Your task to perform on an android device: turn on sleep mode Image 0: 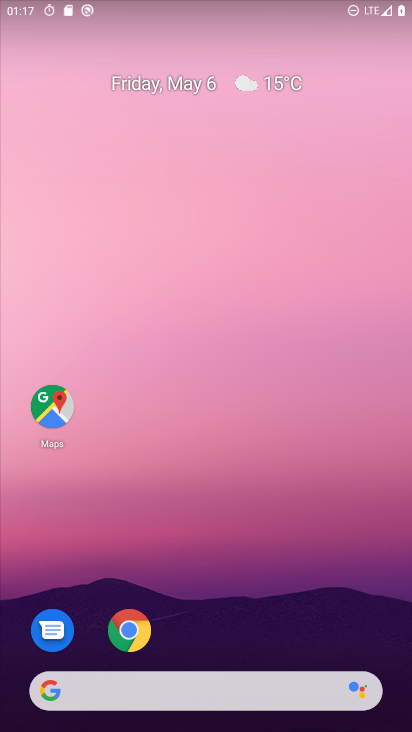
Step 0: drag from (266, 578) to (286, 104)
Your task to perform on an android device: turn on sleep mode Image 1: 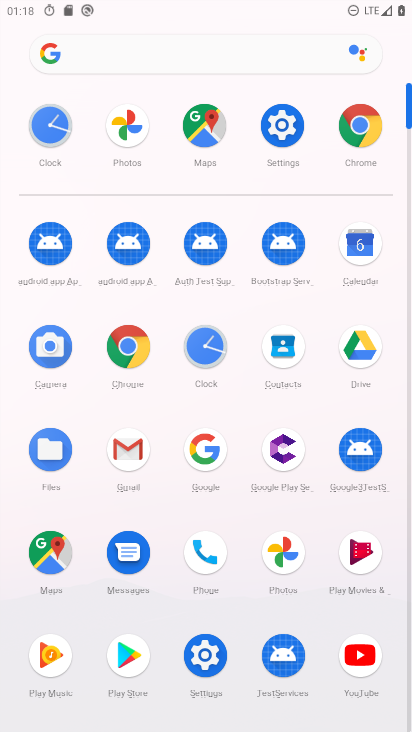
Step 1: click (275, 126)
Your task to perform on an android device: turn on sleep mode Image 2: 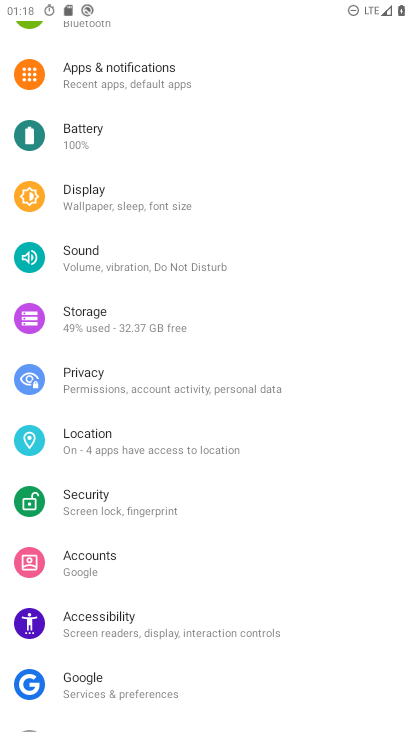
Step 2: click (189, 193)
Your task to perform on an android device: turn on sleep mode Image 3: 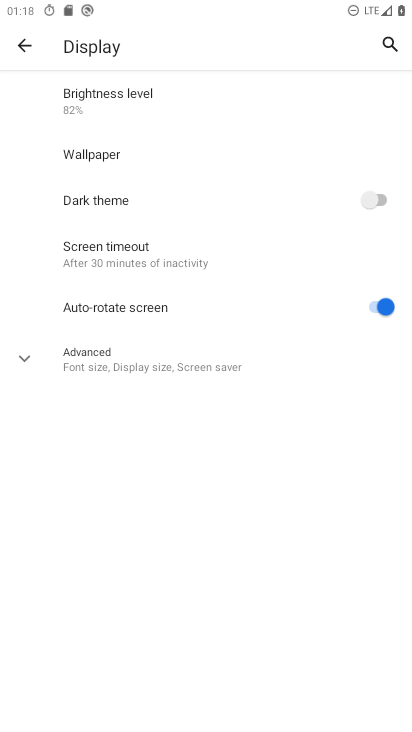
Step 3: click (139, 265)
Your task to perform on an android device: turn on sleep mode Image 4: 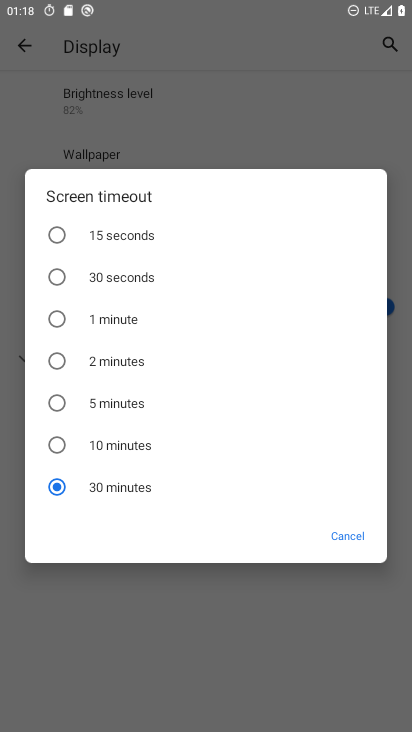
Step 4: task complete